Your task to perform on an android device: set the timer Image 0: 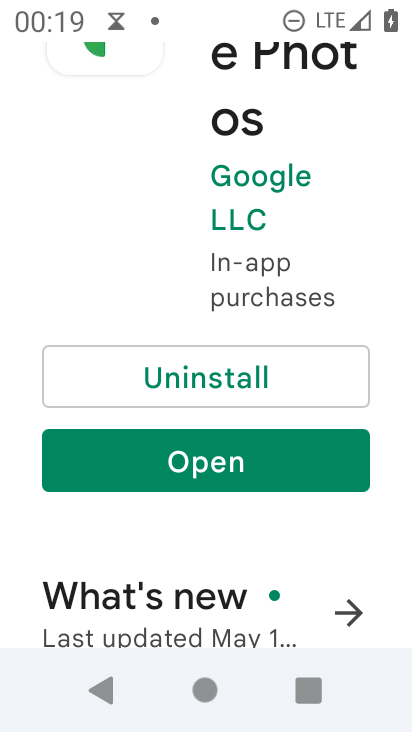
Step 0: press home button
Your task to perform on an android device: set the timer Image 1: 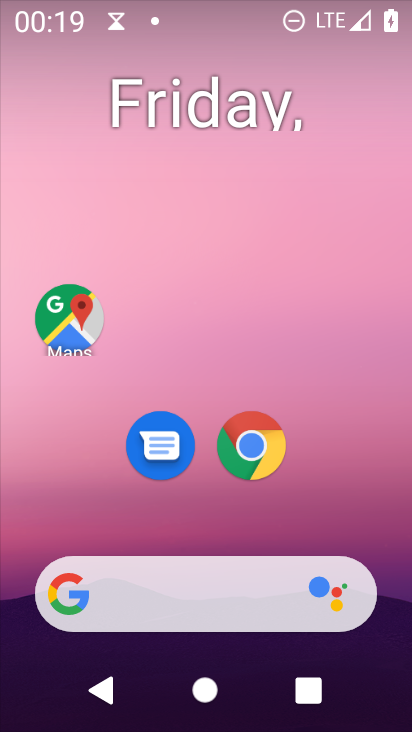
Step 1: drag from (237, 723) to (226, 51)
Your task to perform on an android device: set the timer Image 2: 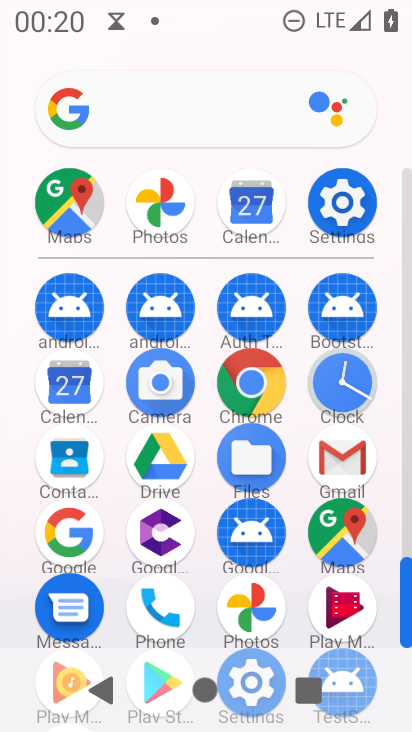
Step 2: click (350, 389)
Your task to perform on an android device: set the timer Image 3: 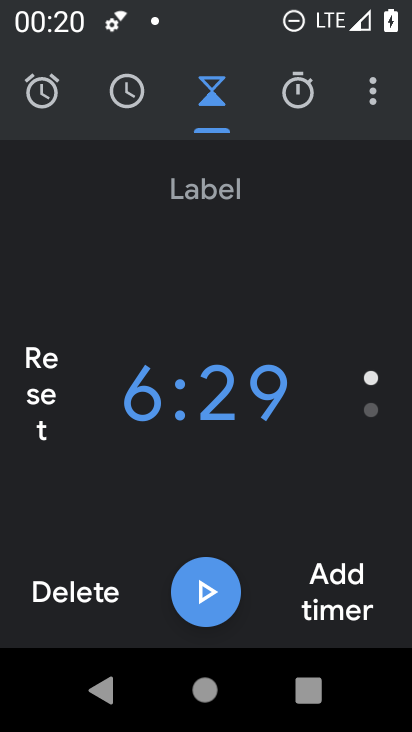
Step 3: click (322, 599)
Your task to perform on an android device: set the timer Image 4: 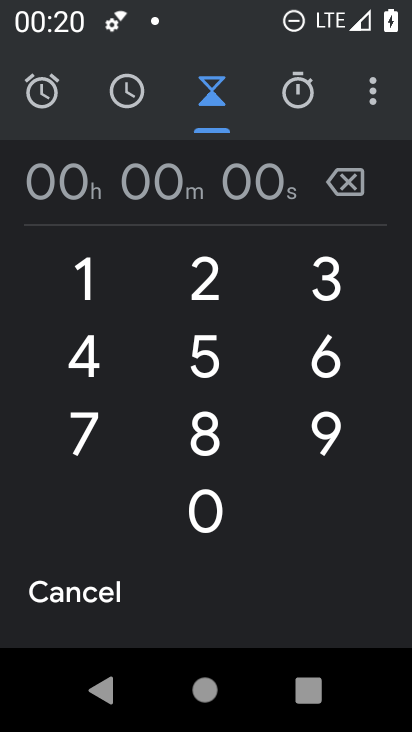
Step 4: click (213, 347)
Your task to perform on an android device: set the timer Image 5: 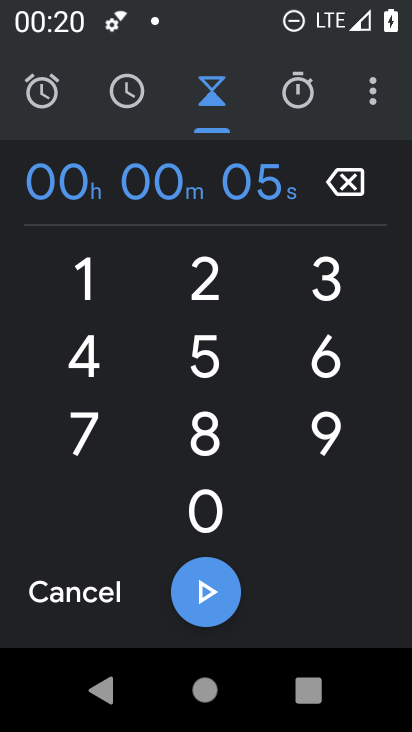
Step 5: click (205, 284)
Your task to perform on an android device: set the timer Image 6: 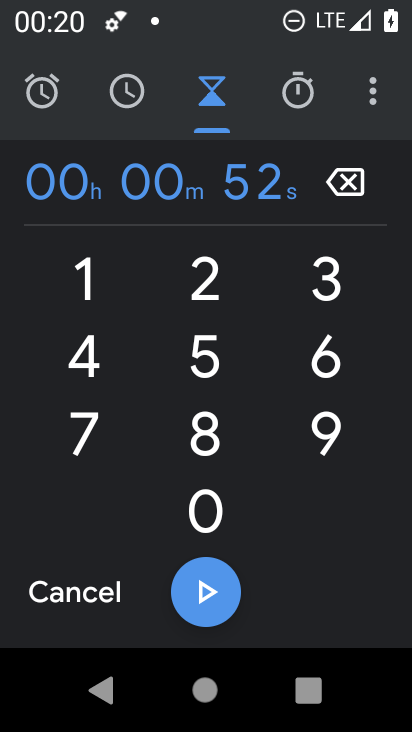
Step 6: click (325, 282)
Your task to perform on an android device: set the timer Image 7: 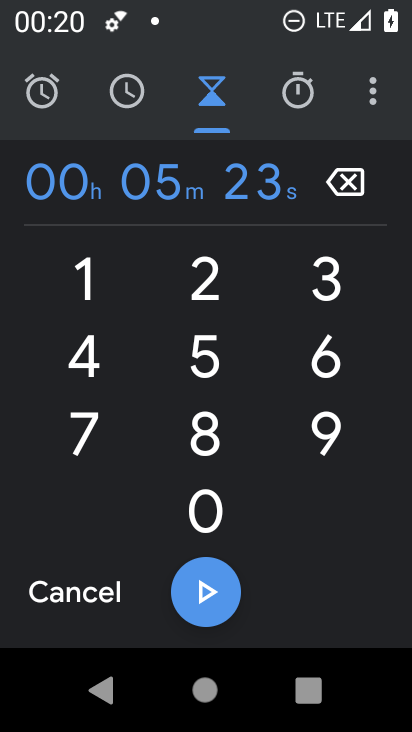
Step 7: click (212, 427)
Your task to perform on an android device: set the timer Image 8: 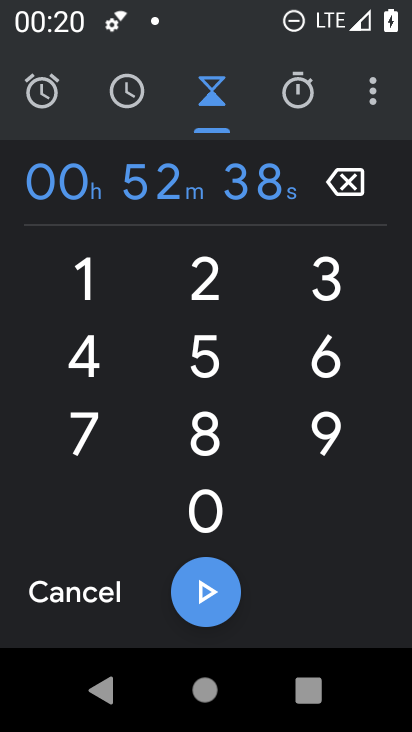
Step 8: click (68, 412)
Your task to perform on an android device: set the timer Image 9: 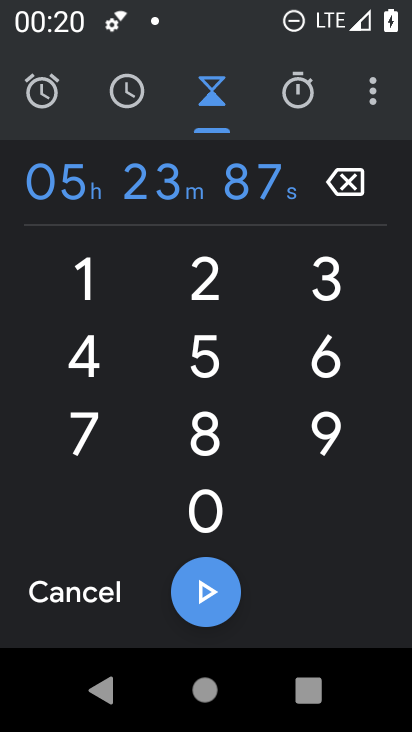
Step 9: click (219, 586)
Your task to perform on an android device: set the timer Image 10: 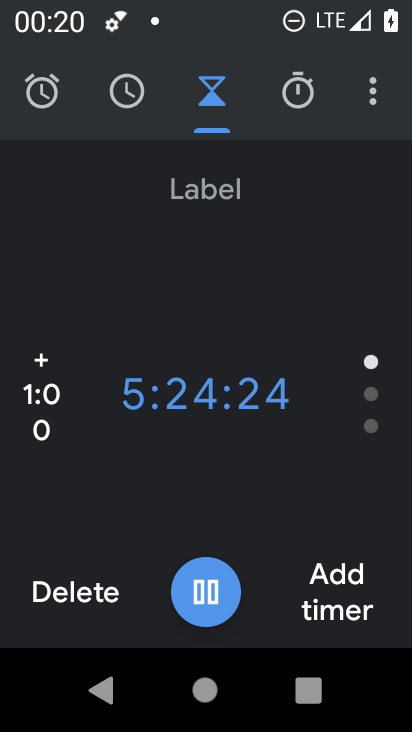
Step 10: task complete